Your task to perform on an android device: Go to notification settings Image 0: 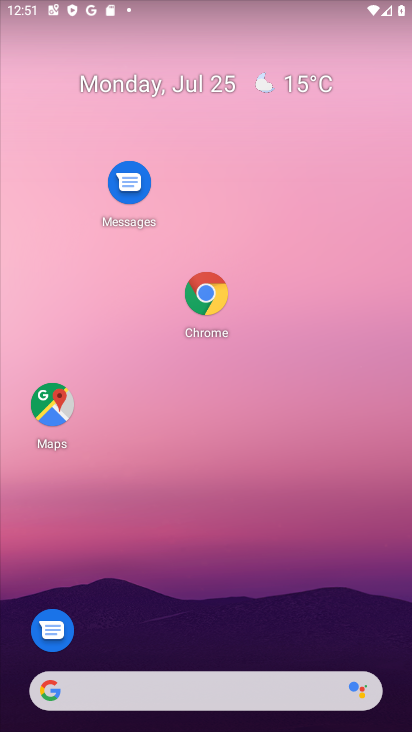
Step 0: drag from (283, 582) to (324, 95)
Your task to perform on an android device: Go to notification settings Image 1: 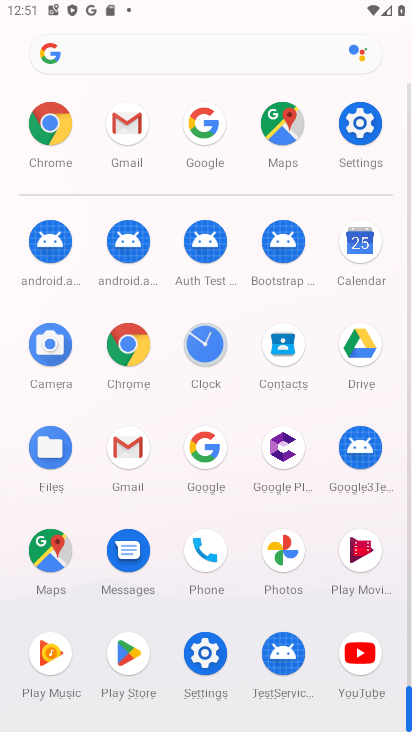
Step 1: click (202, 649)
Your task to perform on an android device: Go to notification settings Image 2: 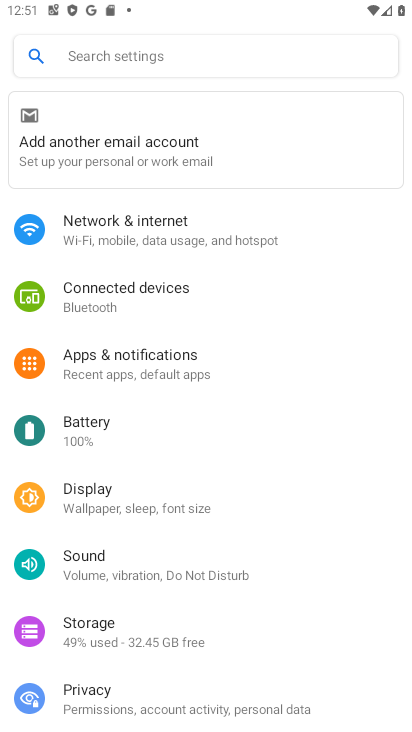
Step 2: click (193, 363)
Your task to perform on an android device: Go to notification settings Image 3: 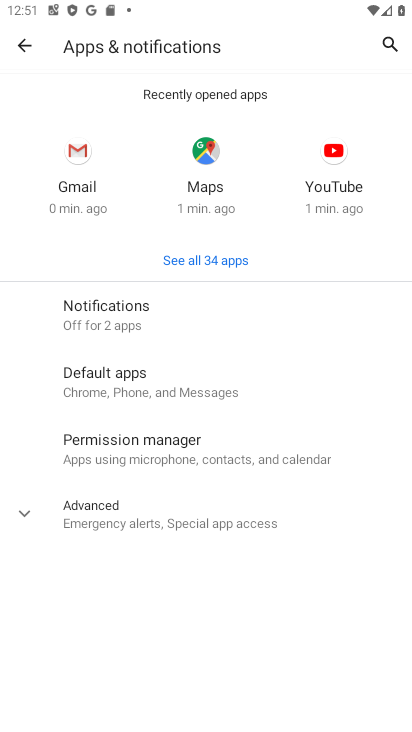
Step 3: click (87, 312)
Your task to perform on an android device: Go to notification settings Image 4: 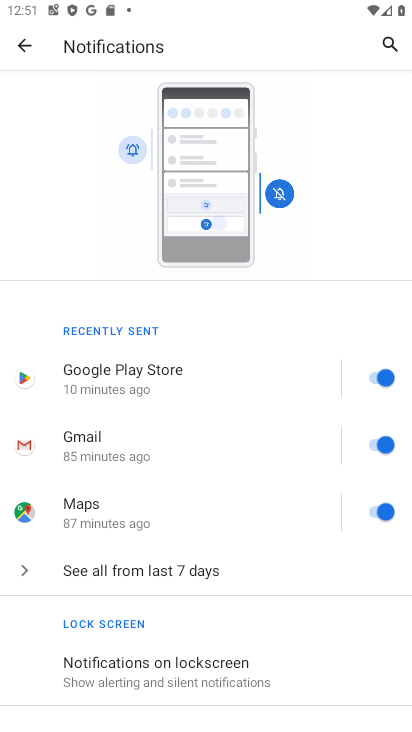
Step 4: task complete